Your task to perform on an android device: turn on notifications settings in the gmail app Image 0: 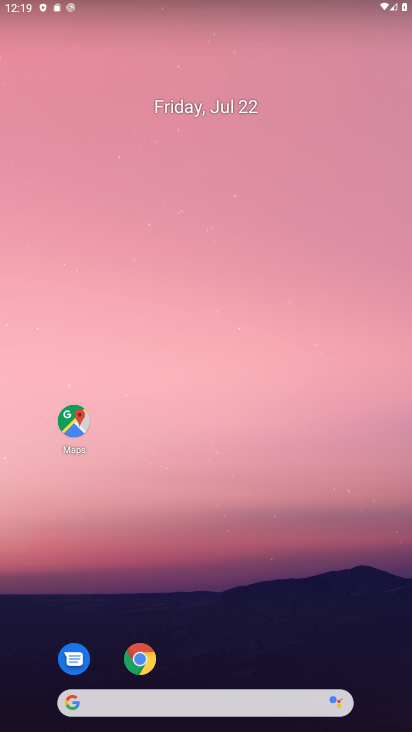
Step 0: task complete